Your task to perform on an android device: turn off wifi Image 0: 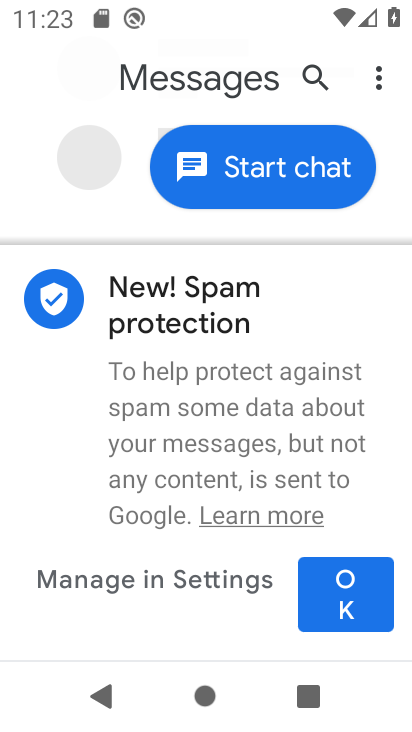
Step 0: press home button
Your task to perform on an android device: turn off wifi Image 1: 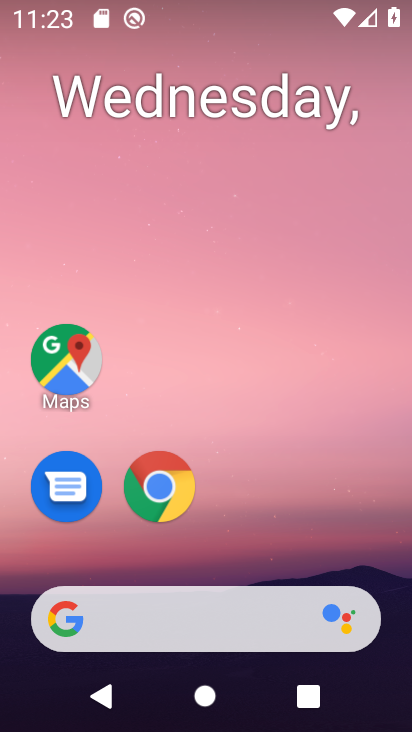
Step 1: drag from (348, 506) to (364, 56)
Your task to perform on an android device: turn off wifi Image 2: 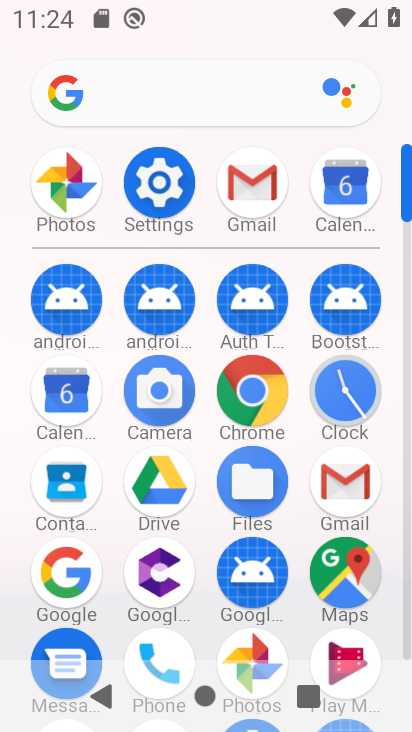
Step 2: click (163, 191)
Your task to perform on an android device: turn off wifi Image 3: 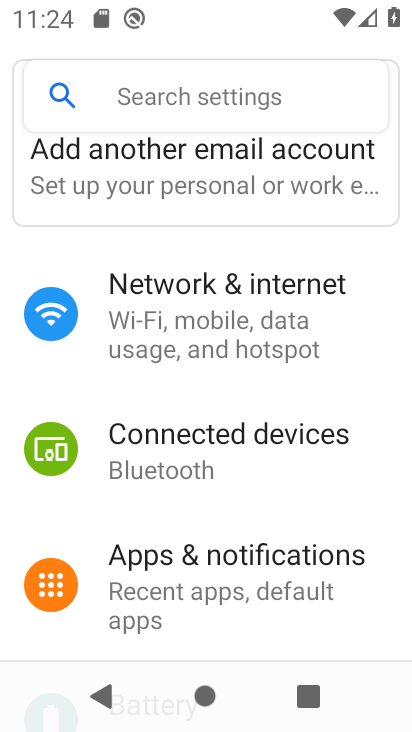
Step 3: drag from (376, 409) to (376, 235)
Your task to perform on an android device: turn off wifi Image 4: 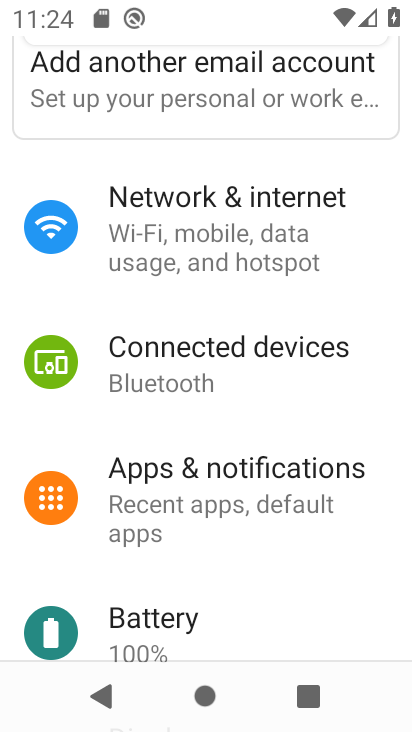
Step 4: drag from (363, 618) to (373, 331)
Your task to perform on an android device: turn off wifi Image 5: 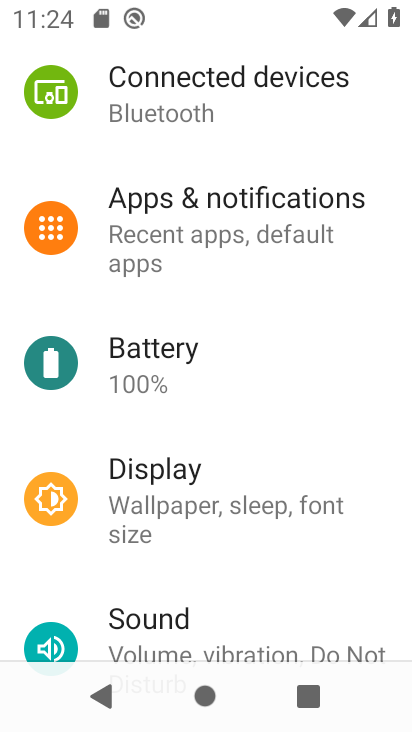
Step 5: drag from (347, 563) to (346, 282)
Your task to perform on an android device: turn off wifi Image 6: 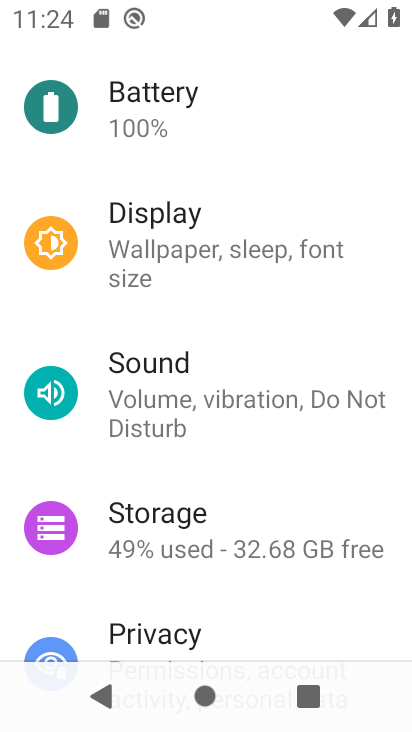
Step 6: drag from (370, 598) to (362, 332)
Your task to perform on an android device: turn off wifi Image 7: 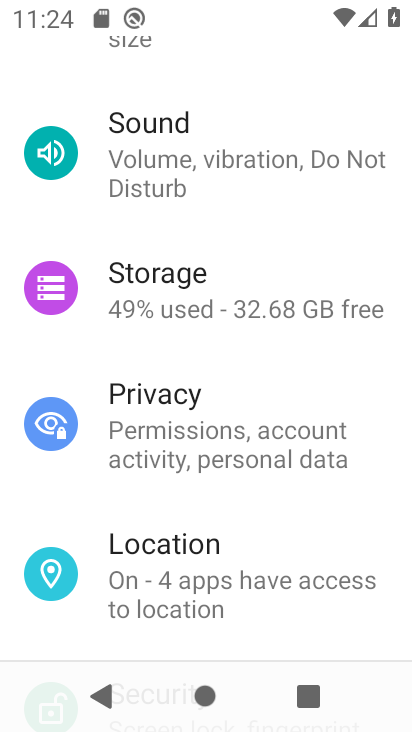
Step 7: drag from (362, 637) to (367, 379)
Your task to perform on an android device: turn off wifi Image 8: 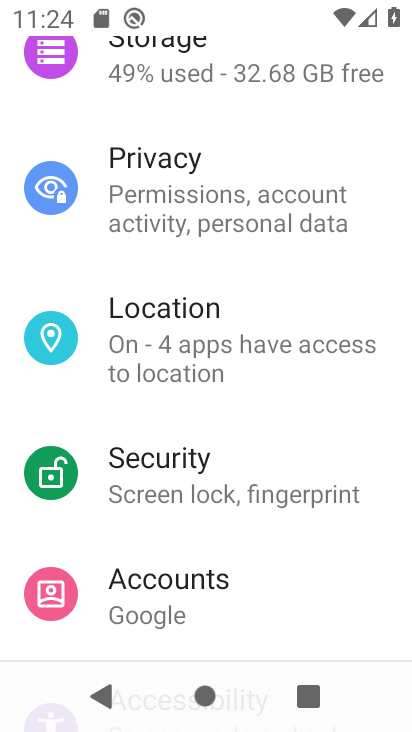
Step 8: drag from (322, 597) to (364, 310)
Your task to perform on an android device: turn off wifi Image 9: 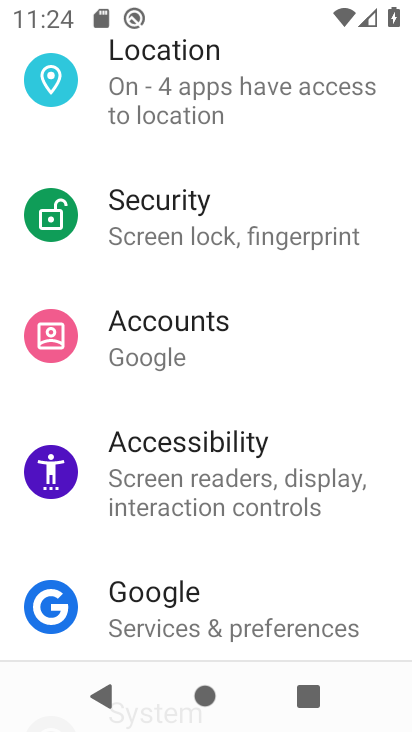
Step 9: drag from (376, 149) to (362, 358)
Your task to perform on an android device: turn off wifi Image 10: 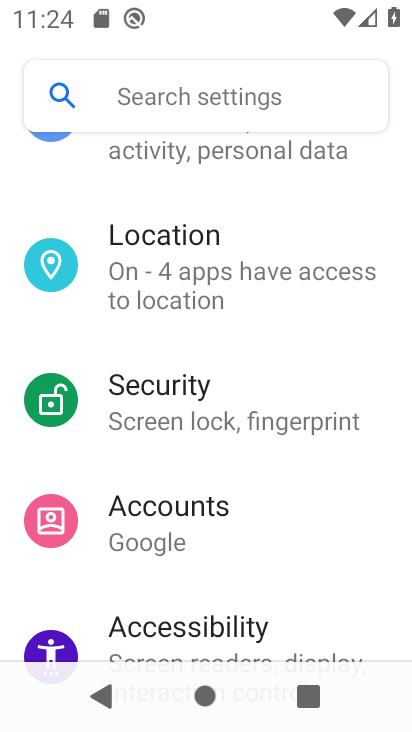
Step 10: drag from (357, 173) to (362, 397)
Your task to perform on an android device: turn off wifi Image 11: 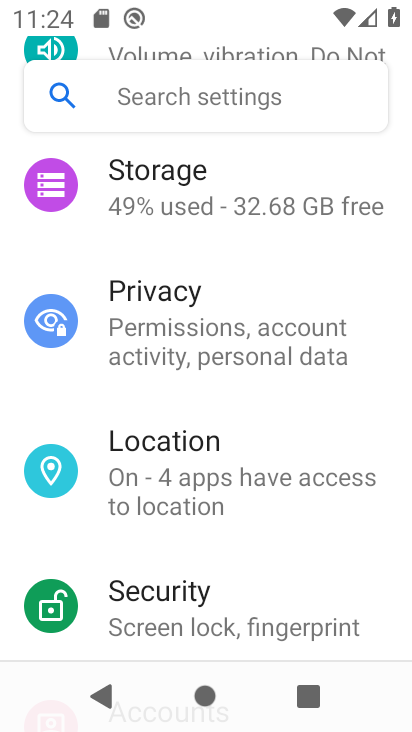
Step 11: drag from (346, 169) to (368, 382)
Your task to perform on an android device: turn off wifi Image 12: 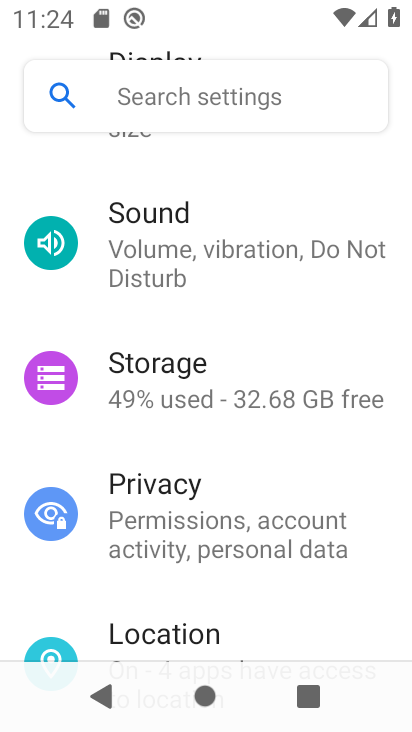
Step 12: drag from (338, 187) to (325, 360)
Your task to perform on an android device: turn off wifi Image 13: 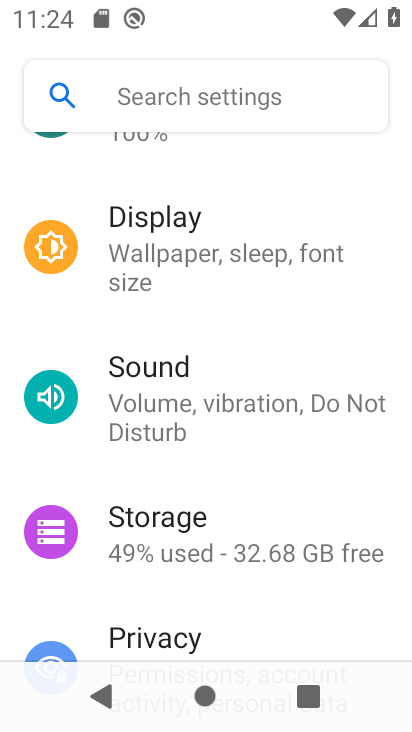
Step 13: drag from (314, 157) to (322, 329)
Your task to perform on an android device: turn off wifi Image 14: 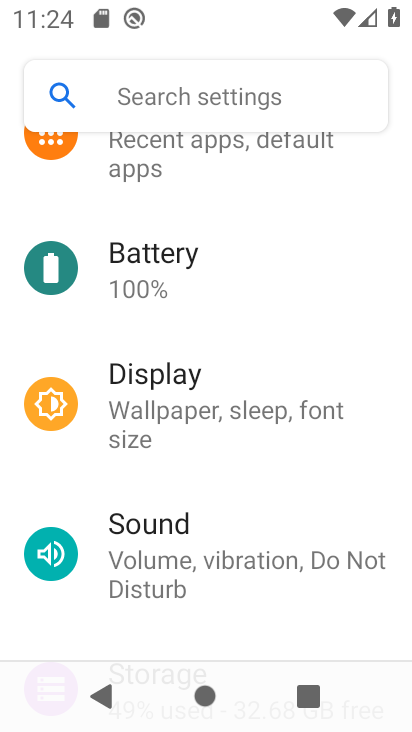
Step 14: drag from (318, 219) to (323, 361)
Your task to perform on an android device: turn off wifi Image 15: 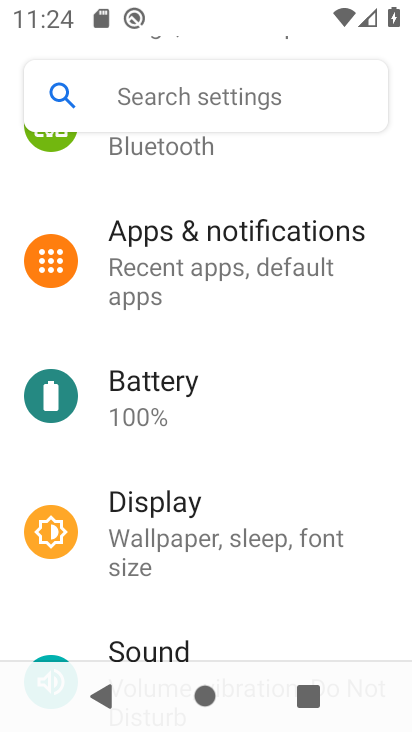
Step 15: drag from (367, 216) to (356, 539)
Your task to perform on an android device: turn off wifi Image 16: 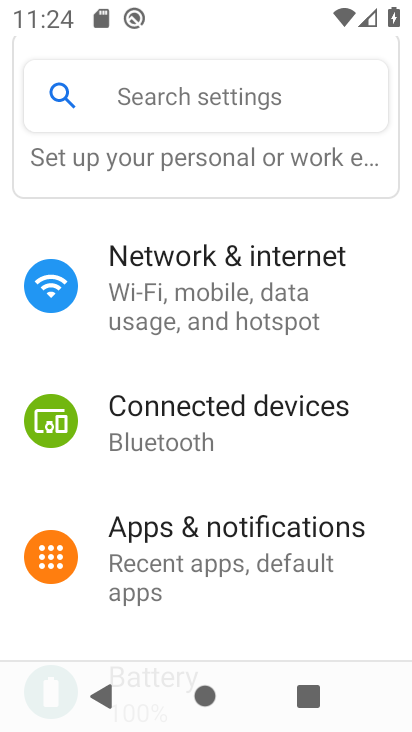
Step 16: click (240, 306)
Your task to perform on an android device: turn off wifi Image 17: 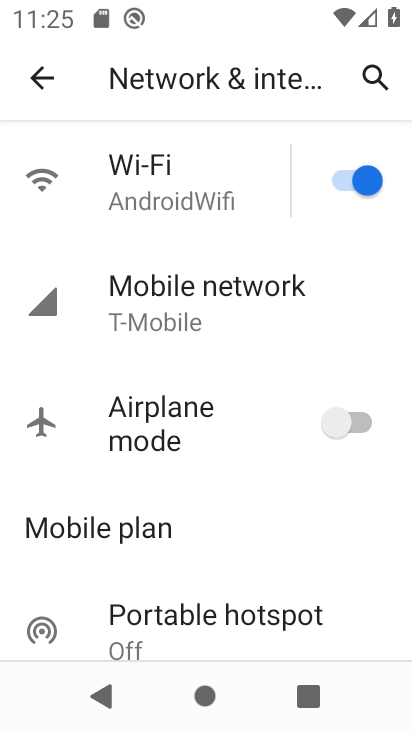
Step 17: click (340, 165)
Your task to perform on an android device: turn off wifi Image 18: 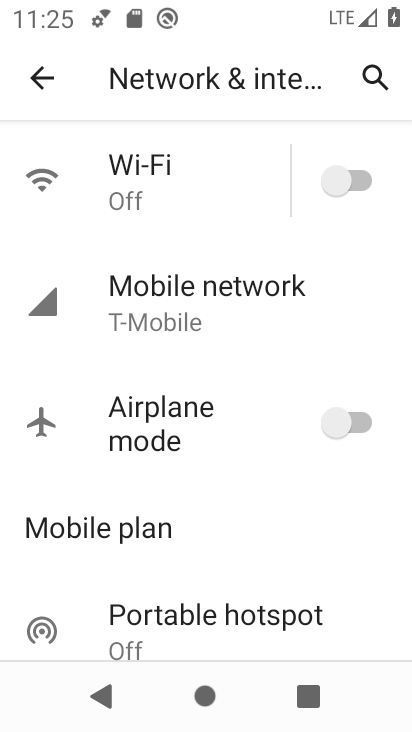
Step 18: task complete